Your task to perform on an android device: find photos in the google photos app Image 0: 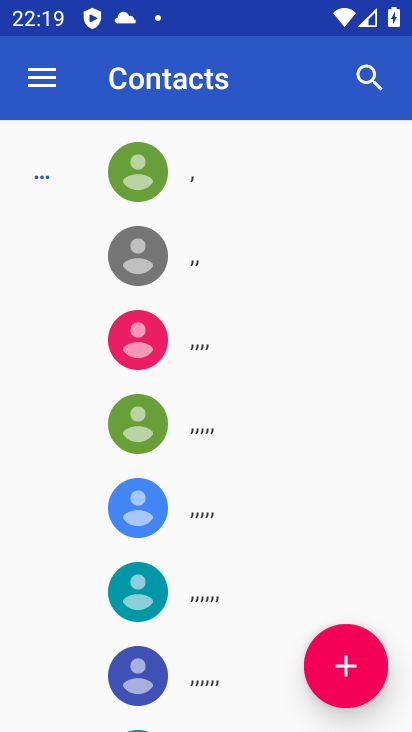
Step 0: press home button
Your task to perform on an android device: find photos in the google photos app Image 1: 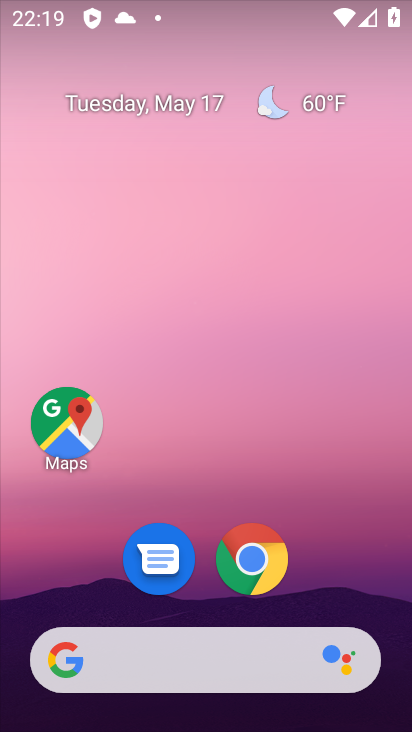
Step 1: drag from (328, 545) to (307, 77)
Your task to perform on an android device: find photos in the google photos app Image 2: 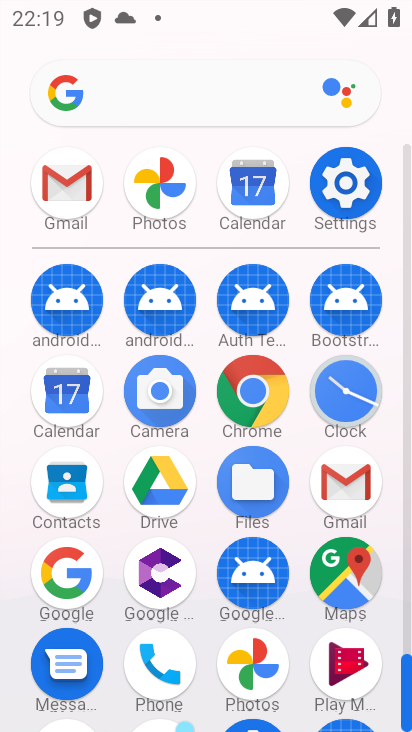
Step 2: click (265, 667)
Your task to perform on an android device: find photos in the google photos app Image 3: 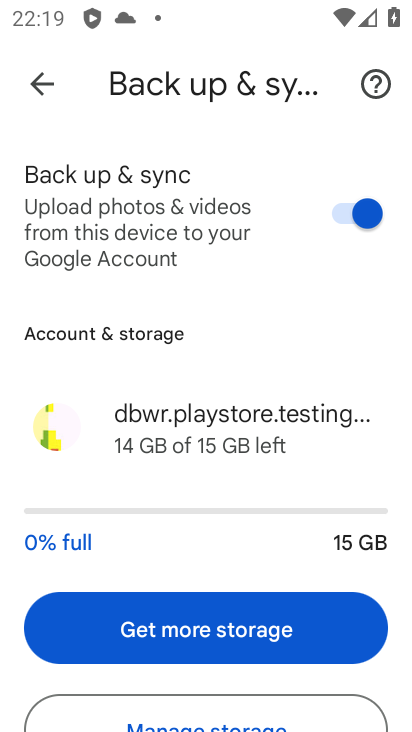
Step 3: click (42, 85)
Your task to perform on an android device: find photos in the google photos app Image 4: 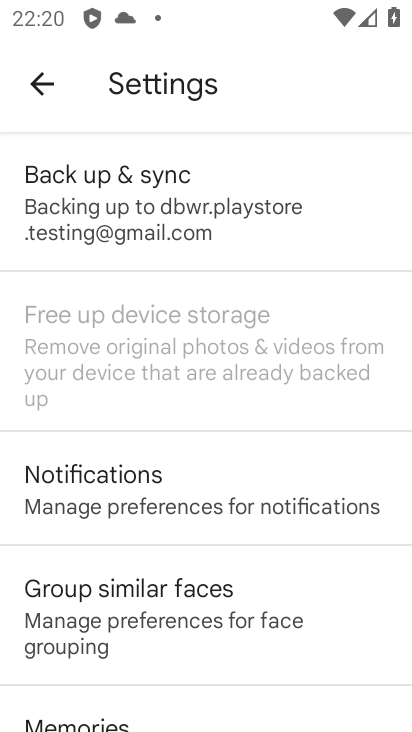
Step 4: click (42, 86)
Your task to perform on an android device: find photos in the google photos app Image 5: 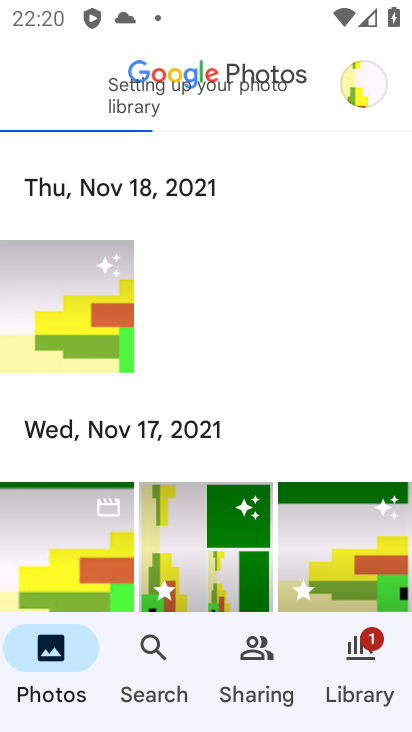
Step 5: task complete